Your task to perform on an android device: Go to Google maps Image 0: 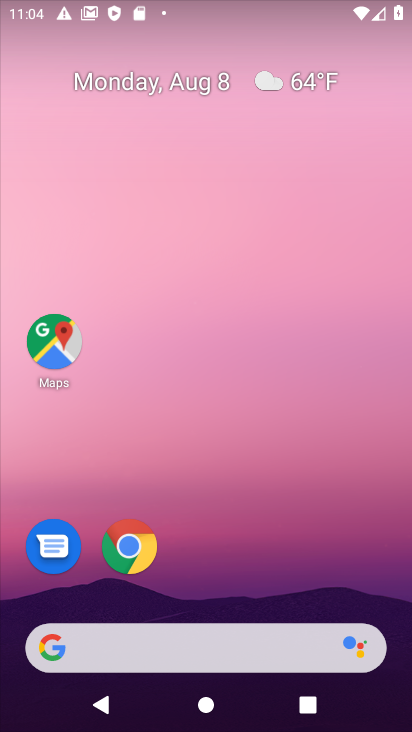
Step 0: drag from (229, 366) to (264, 2)
Your task to perform on an android device: Go to Google maps Image 1: 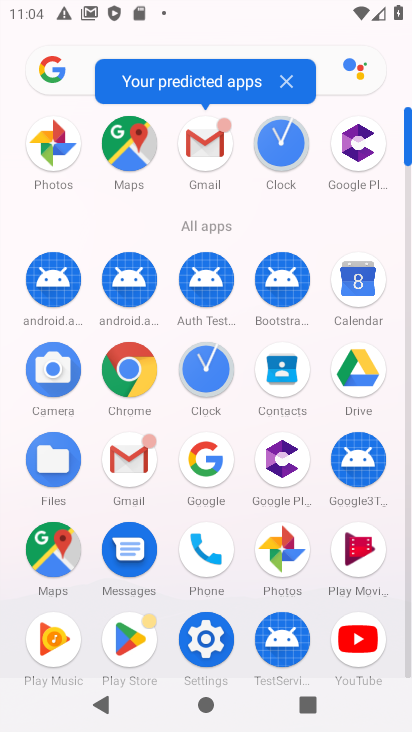
Step 1: click (40, 546)
Your task to perform on an android device: Go to Google maps Image 2: 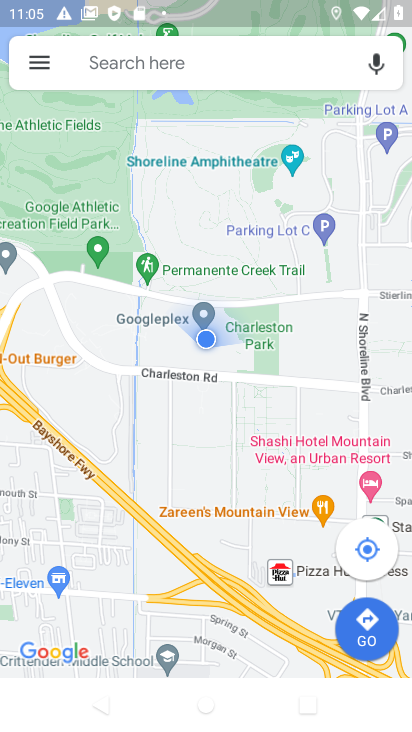
Step 2: task complete